Your task to perform on an android device: set the stopwatch Image 0: 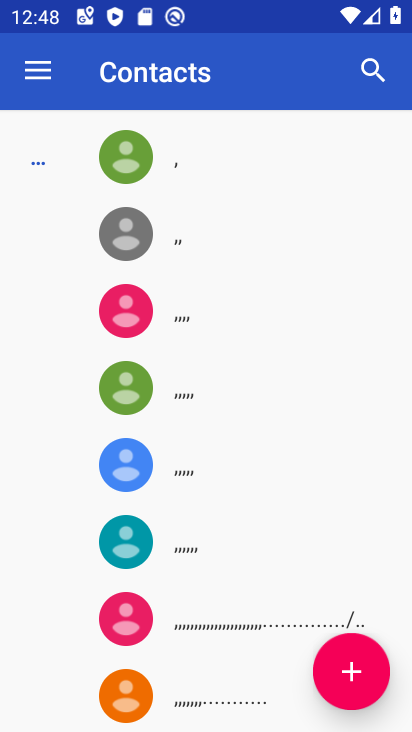
Step 0: press home button
Your task to perform on an android device: set the stopwatch Image 1: 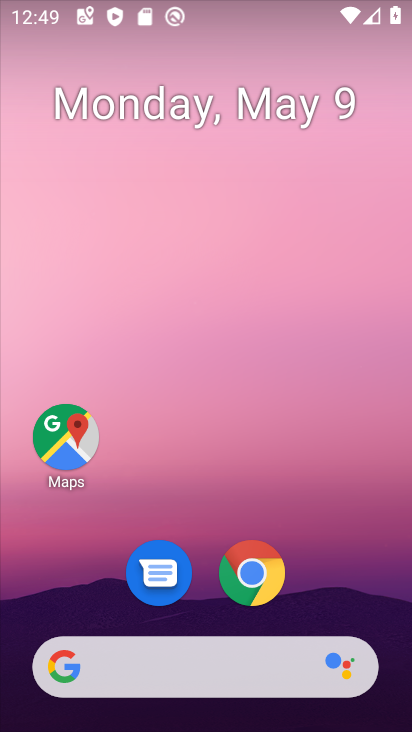
Step 1: drag from (314, 536) to (113, 213)
Your task to perform on an android device: set the stopwatch Image 2: 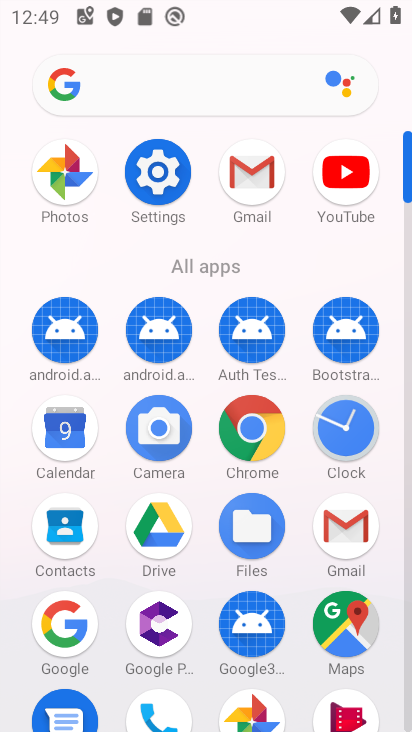
Step 2: click (349, 453)
Your task to perform on an android device: set the stopwatch Image 3: 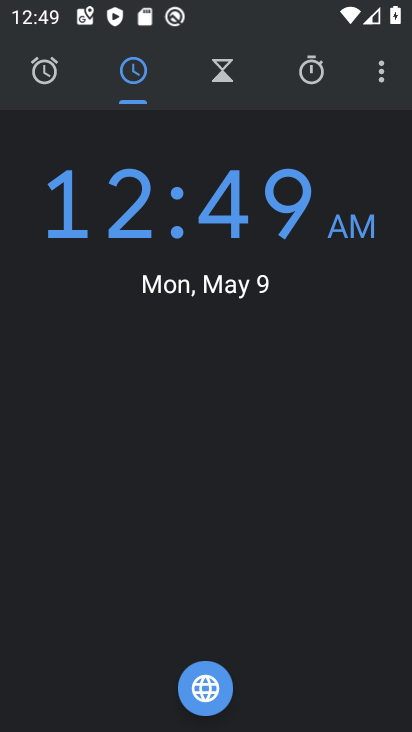
Step 3: click (318, 65)
Your task to perform on an android device: set the stopwatch Image 4: 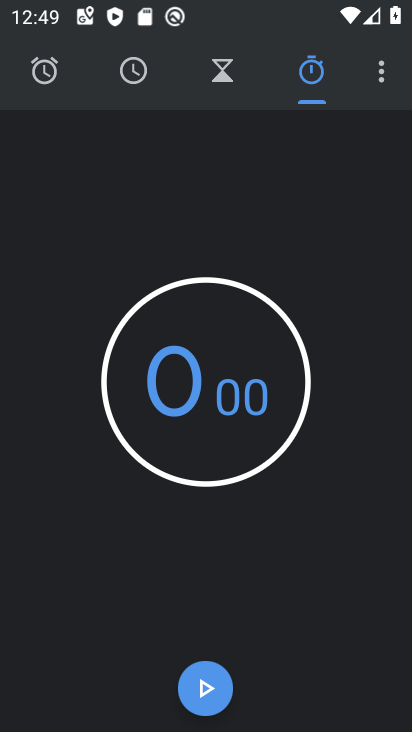
Step 4: click (213, 691)
Your task to perform on an android device: set the stopwatch Image 5: 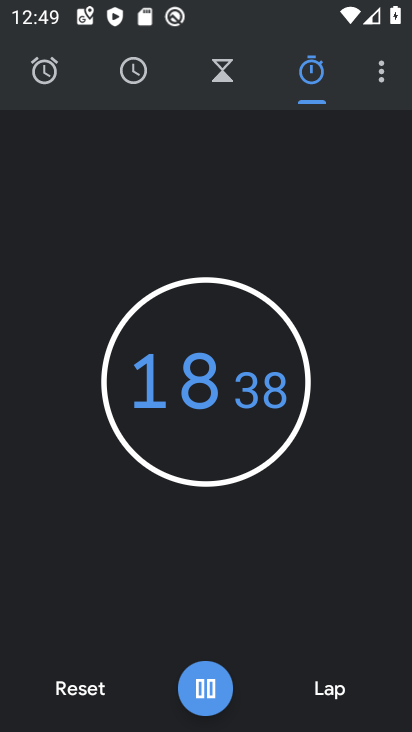
Step 5: click (211, 661)
Your task to perform on an android device: set the stopwatch Image 6: 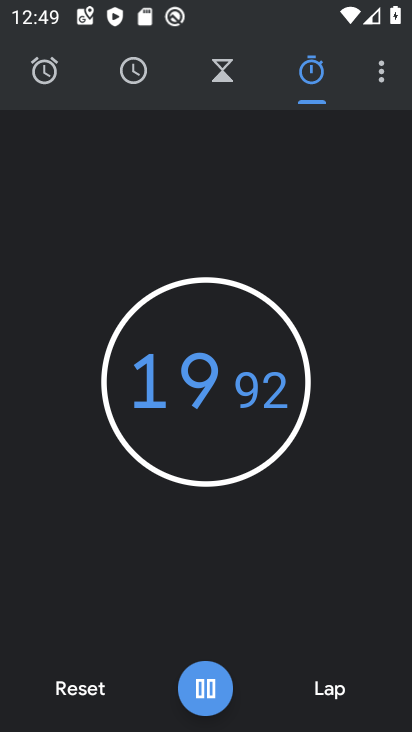
Step 6: click (209, 676)
Your task to perform on an android device: set the stopwatch Image 7: 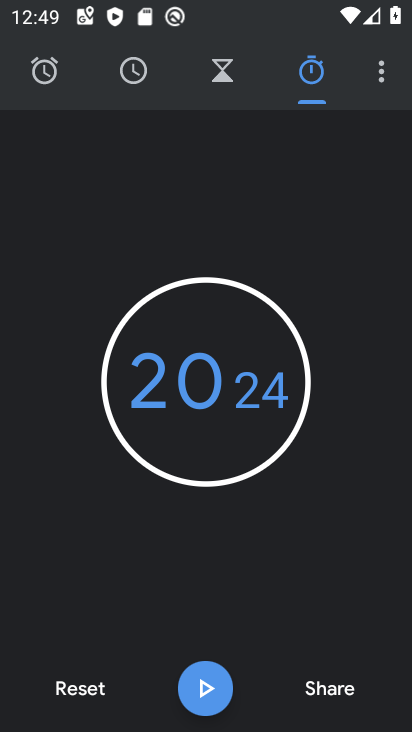
Step 7: task complete